Your task to perform on an android device: Open Google Image 0: 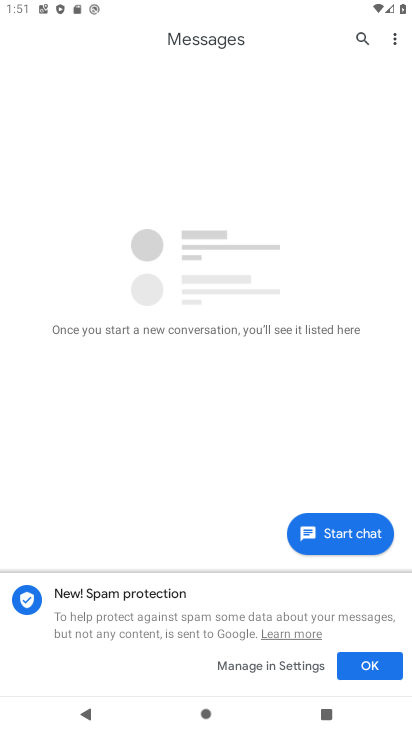
Step 0: press home button
Your task to perform on an android device: Open Google Image 1: 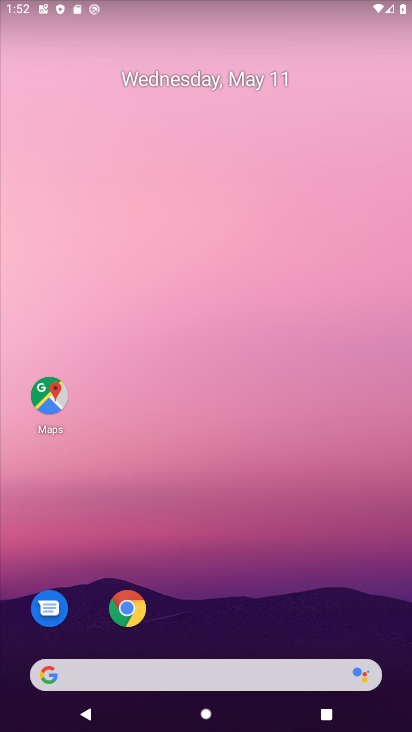
Step 1: drag from (217, 628) to (295, 52)
Your task to perform on an android device: Open Google Image 2: 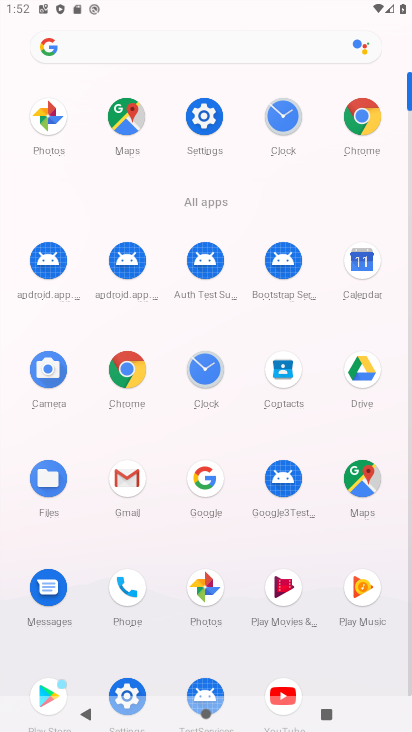
Step 2: click (206, 471)
Your task to perform on an android device: Open Google Image 3: 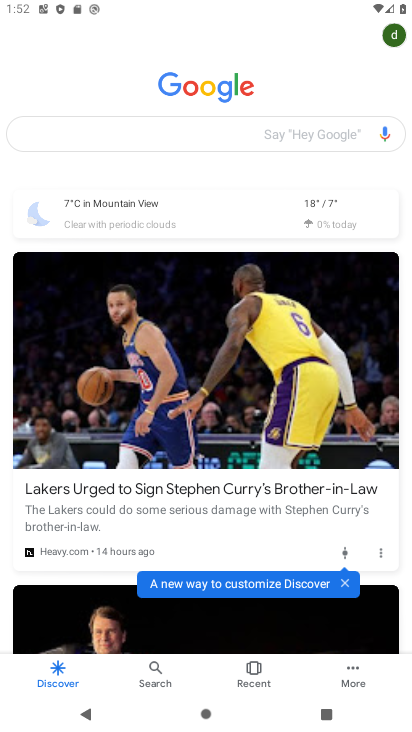
Step 3: task complete